Your task to perform on an android device: Open CNN.com Image 0: 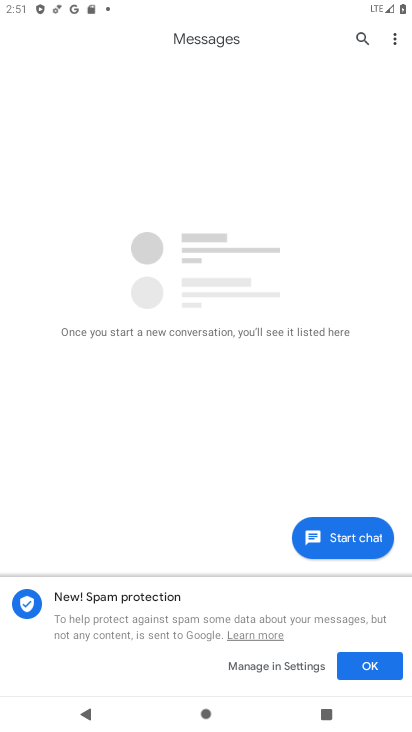
Step 0: press home button
Your task to perform on an android device: Open CNN.com Image 1: 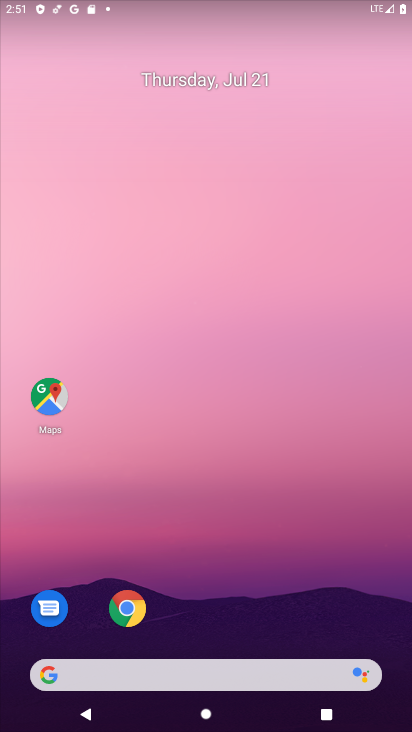
Step 1: click (136, 624)
Your task to perform on an android device: Open CNN.com Image 2: 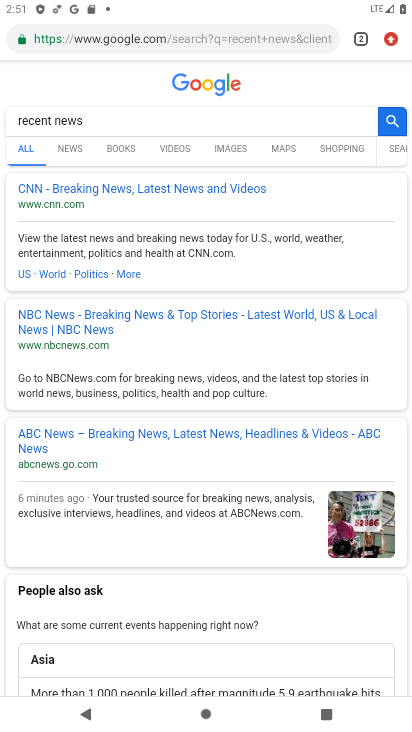
Step 2: click (116, 195)
Your task to perform on an android device: Open CNN.com Image 3: 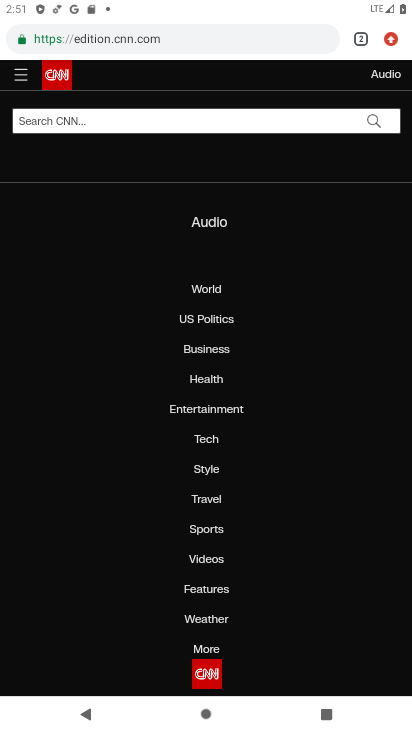
Step 3: task complete